Your task to perform on an android device: Clear the cart on costco. Search for bose quietcomfort 35 on costco, select the first entry, and add it to the cart. Image 0: 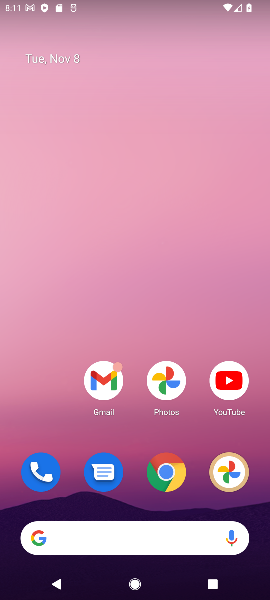
Step 0: click (165, 471)
Your task to perform on an android device: Clear the cart on costco. Search for bose quietcomfort 35 on costco, select the first entry, and add it to the cart. Image 1: 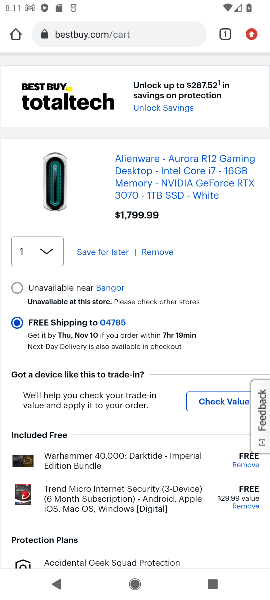
Step 1: click (147, 32)
Your task to perform on an android device: Clear the cart on costco. Search for bose quietcomfort 35 on costco, select the first entry, and add it to the cart. Image 2: 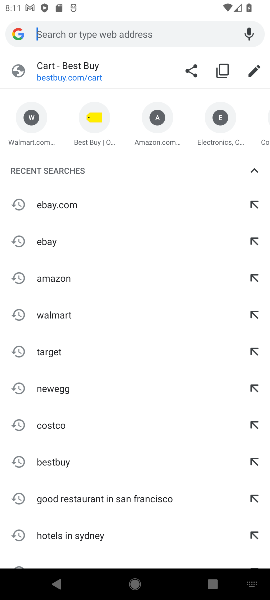
Step 2: click (53, 425)
Your task to perform on an android device: Clear the cart on costco. Search for bose quietcomfort 35 on costco, select the first entry, and add it to the cart. Image 3: 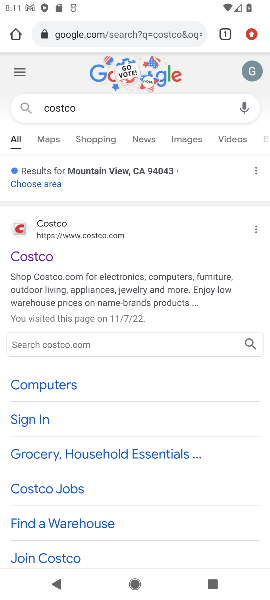
Step 3: click (49, 258)
Your task to perform on an android device: Clear the cart on costco. Search for bose quietcomfort 35 on costco, select the first entry, and add it to the cart. Image 4: 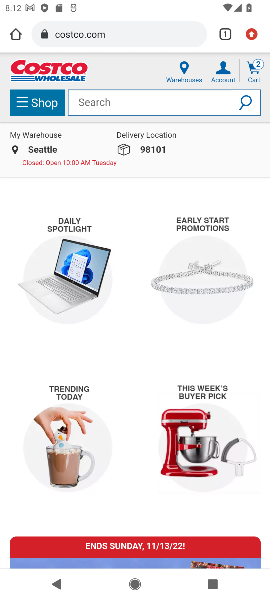
Step 4: click (158, 102)
Your task to perform on an android device: Clear the cart on costco. Search for bose quietcomfort 35 on costco, select the first entry, and add it to the cart. Image 5: 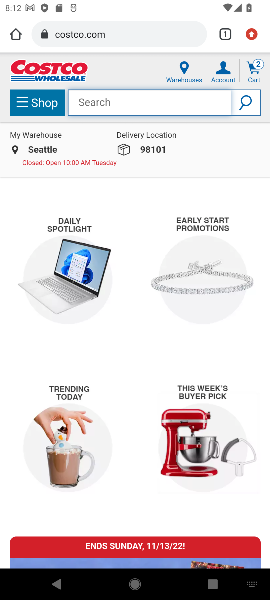
Step 5: type "bose quietcomfort 35"
Your task to perform on an android device: Clear the cart on costco. Search for bose quietcomfort 35 on costco, select the first entry, and add it to the cart. Image 6: 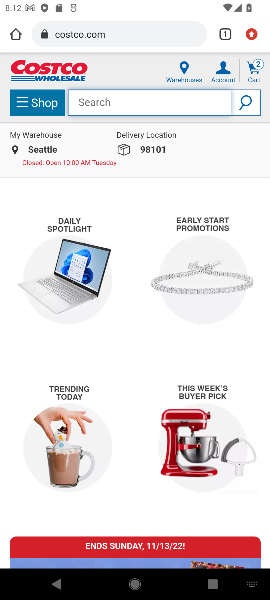
Step 6: press enter
Your task to perform on an android device: Clear the cart on costco. Search for bose quietcomfort 35 on costco, select the first entry, and add it to the cart. Image 7: 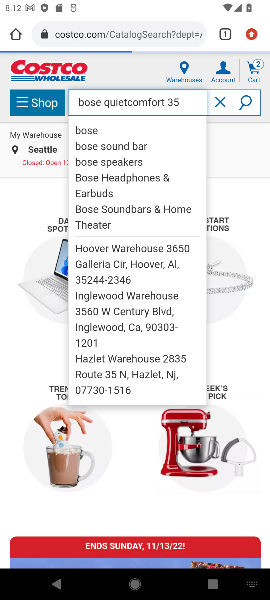
Step 7: press enter
Your task to perform on an android device: Clear the cart on costco. Search for bose quietcomfort 35 on costco, select the first entry, and add it to the cart. Image 8: 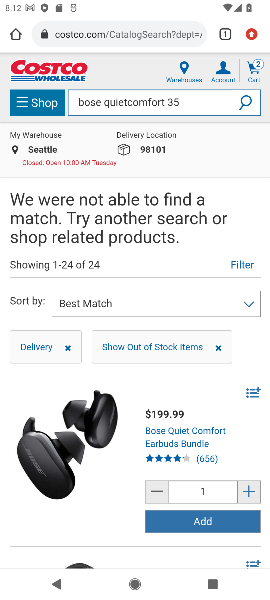
Step 8: drag from (113, 481) to (184, 287)
Your task to perform on an android device: Clear the cart on costco. Search for bose quietcomfort 35 on costco, select the first entry, and add it to the cart. Image 9: 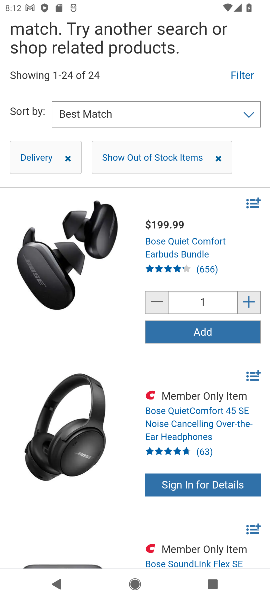
Step 9: click (167, 249)
Your task to perform on an android device: Clear the cart on costco. Search for bose quietcomfort 35 on costco, select the first entry, and add it to the cart. Image 10: 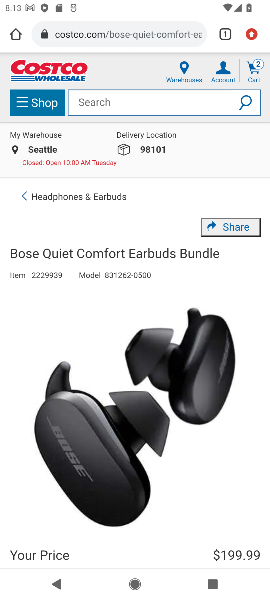
Step 10: task complete